Your task to perform on an android device: Show me recent news Image 0: 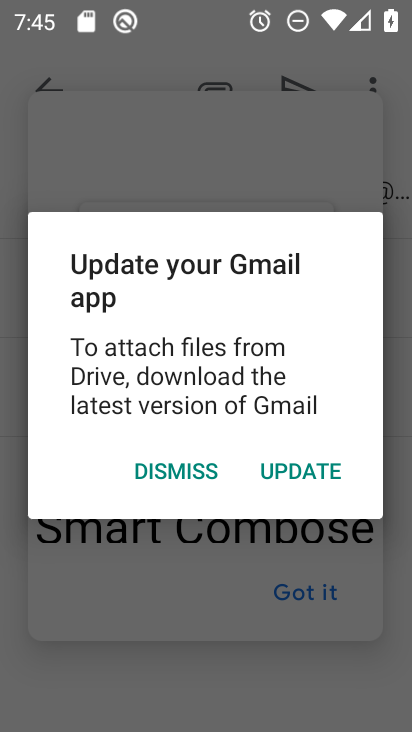
Step 0: press home button
Your task to perform on an android device: Show me recent news Image 1: 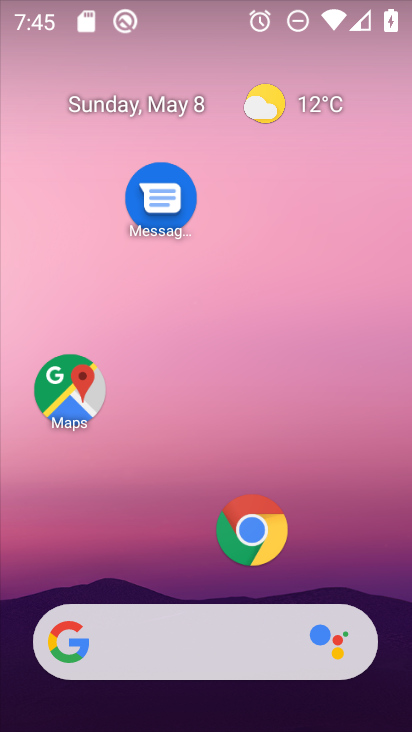
Step 1: task complete